Your task to perform on an android device: What's the weather going to be this weekend? Image 0: 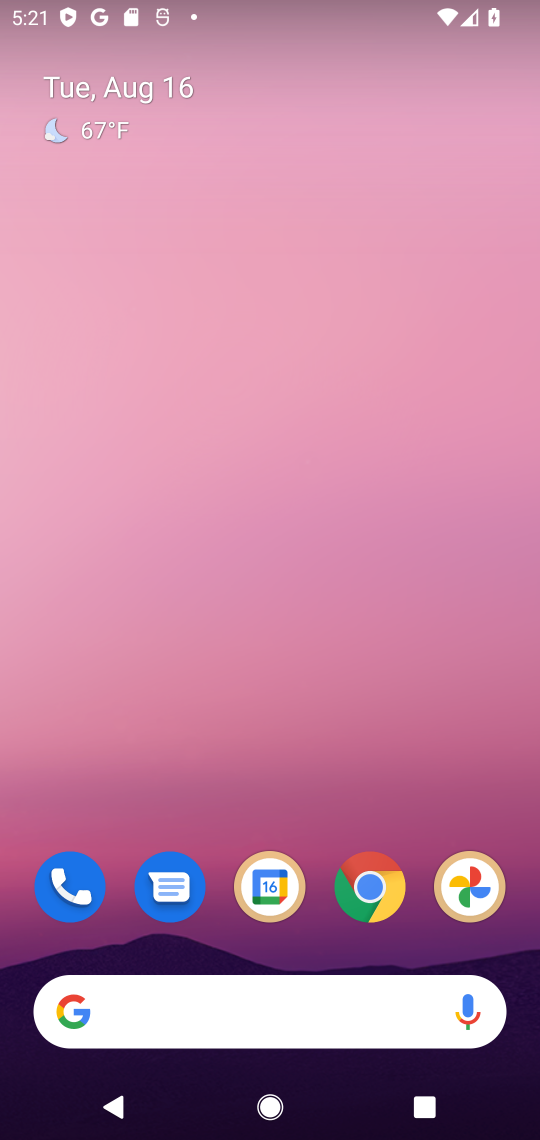
Step 0: drag from (259, 784) to (396, 1)
Your task to perform on an android device: What's the weather going to be this weekend? Image 1: 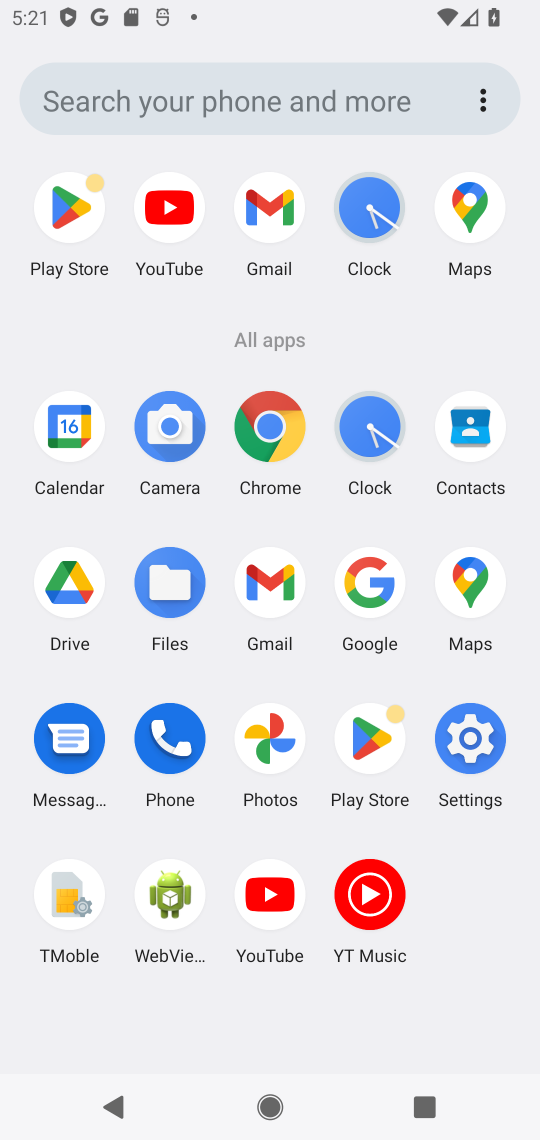
Step 1: click (265, 430)
Your task to perform on an android device: What's the weather going to be this weekend? Image 2: 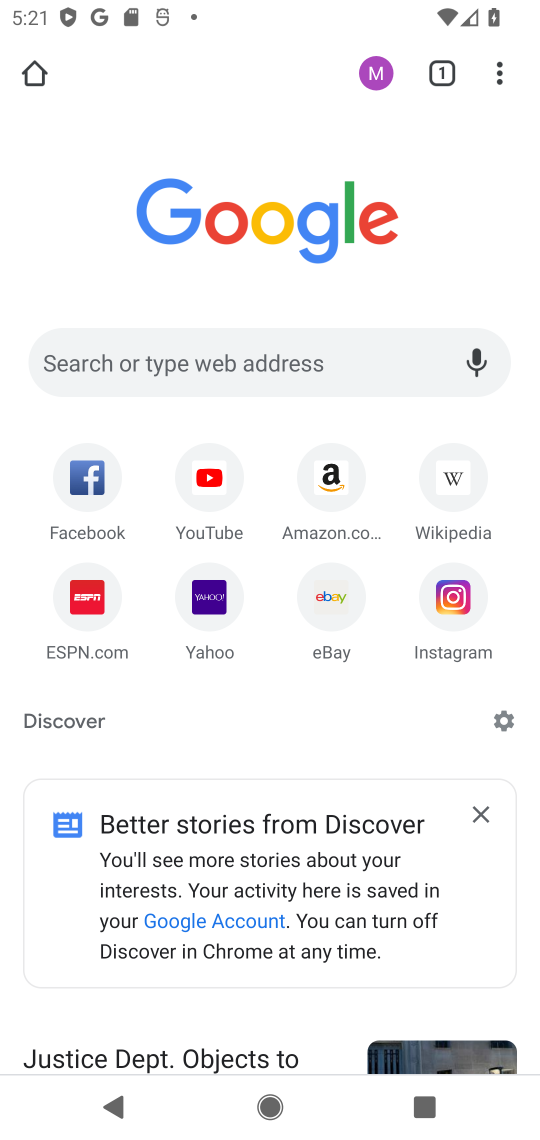
Step 2: click (215, 345)
Your task to perform on an android device: What's the weather going to be this weekend? Image 3: 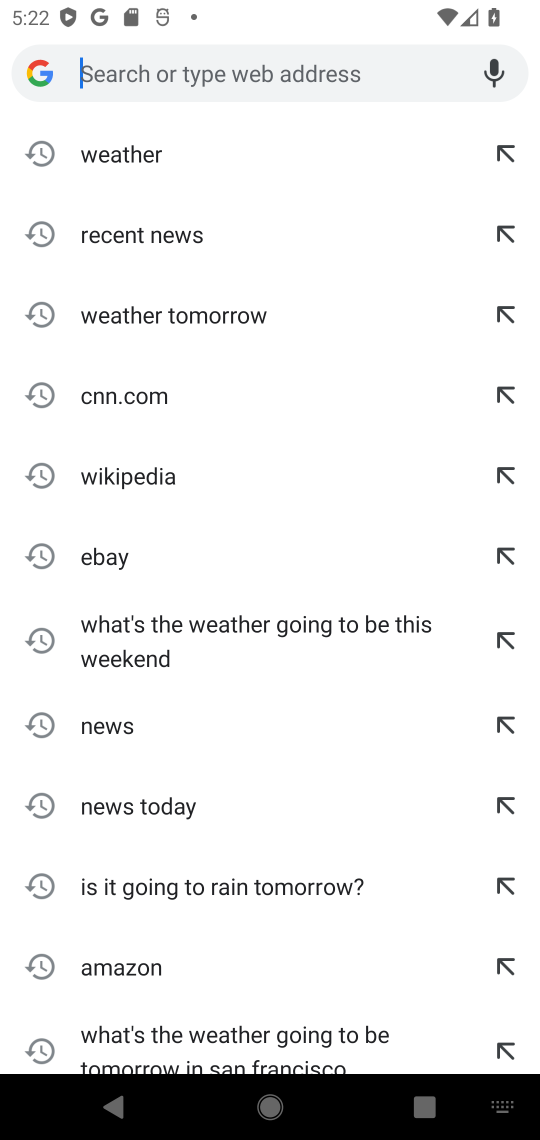
Step 3: click (148, 169)
Your task to perform on an android device: What's the weather going to be this weekend? Image 4: 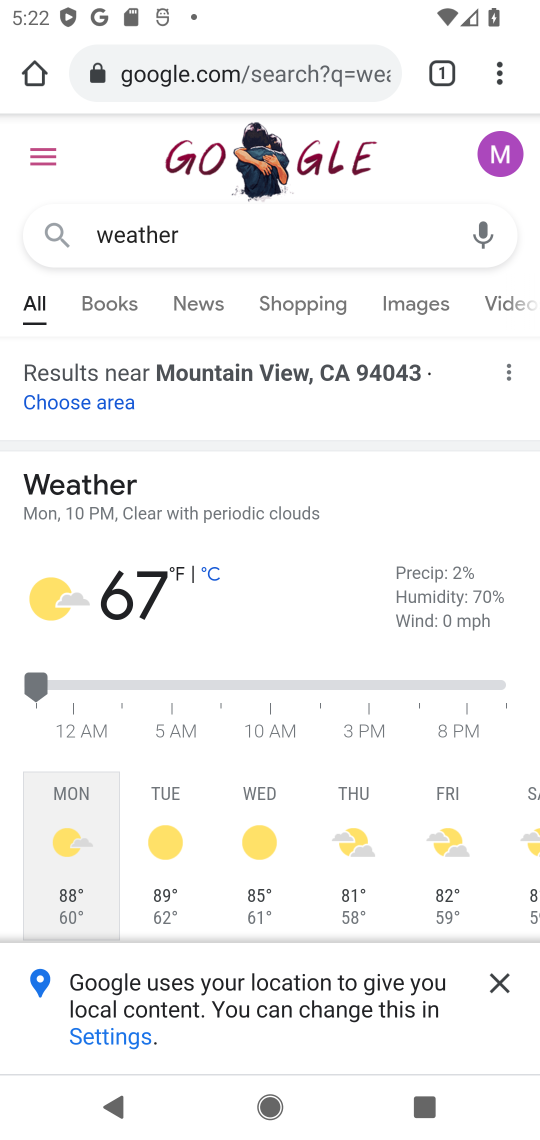
Step 4: click (533, 839)
Your task to perform on an android device: What's the weather going to be this weekend? Image 5: 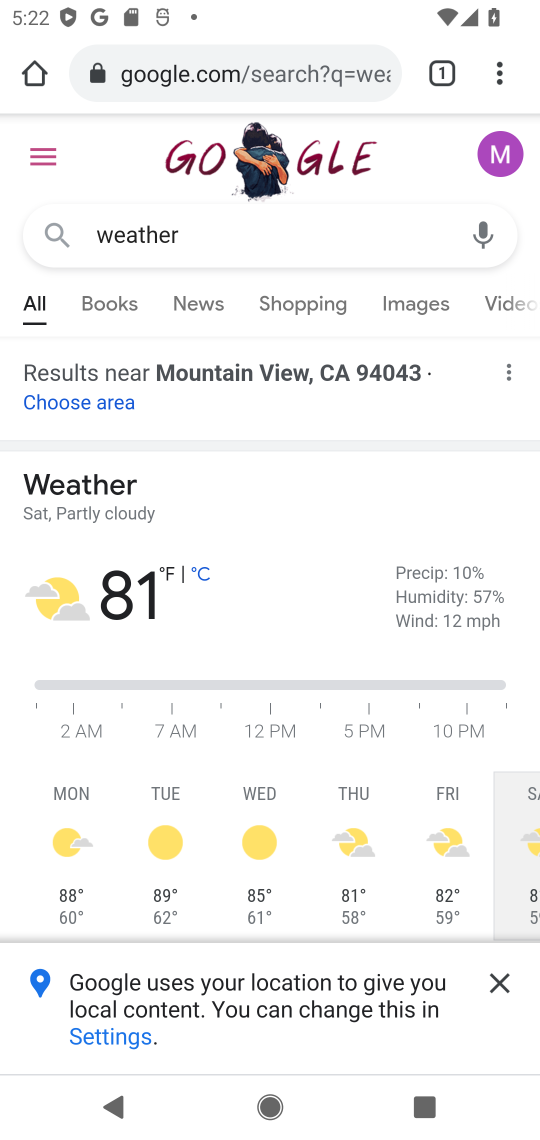
Step 5: task complete